Your task to perform on an android device: Open Wikipedia Image 0: 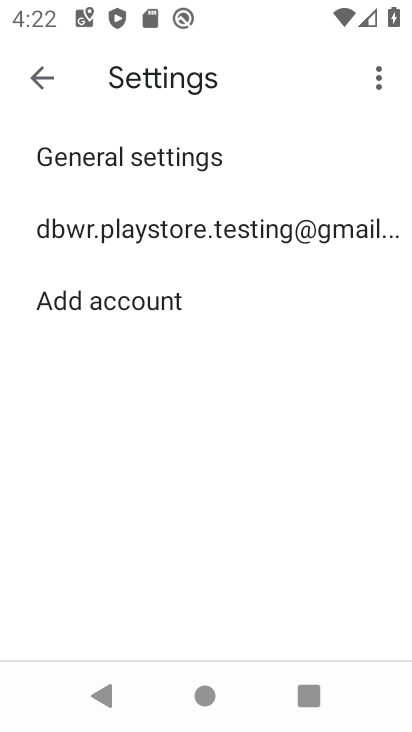
Step 0: press home button
Your task to perform on an android device: Open Wikipedia Image 1: 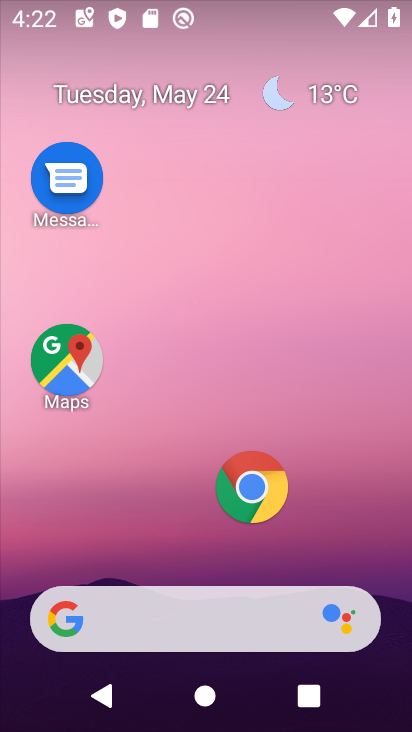
Step 1: drag from (212, 554) to (187, 225)
Your task to perform on an android device: Open Wikipedia Image 2: 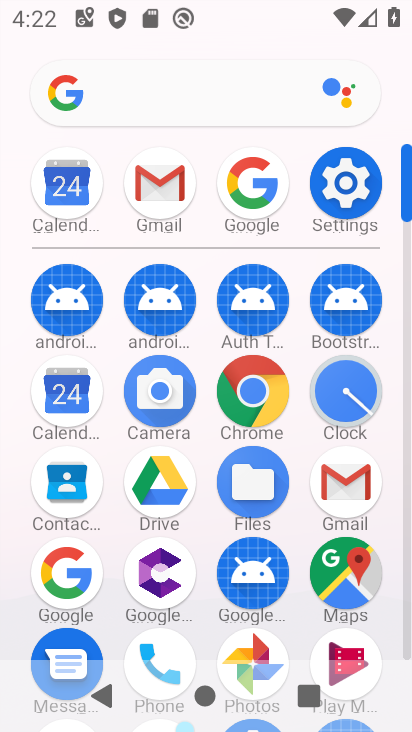
Step 2: click (242, 417)
Your task to perform on an android device: Open Wikipedia Image 3: 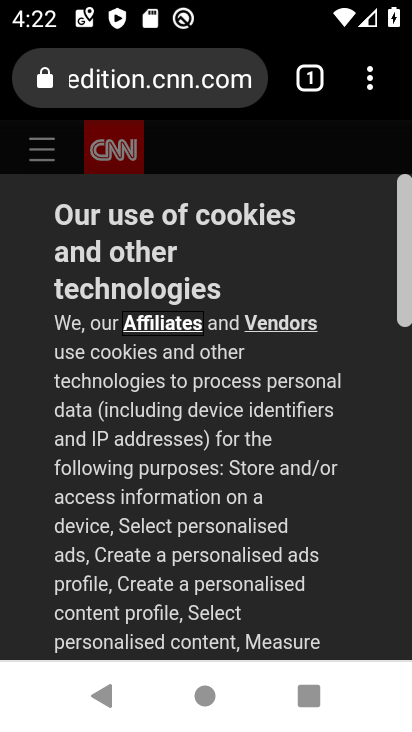
Step 3: press back button
Your task to perform on an android device: Open Wikipedia Image 4: 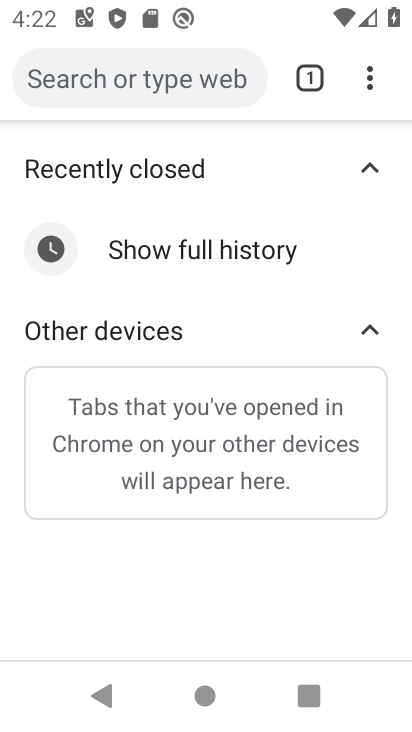
Step 4: press back button
Your task to perform on an android device: Open Wikipedia Image 5: 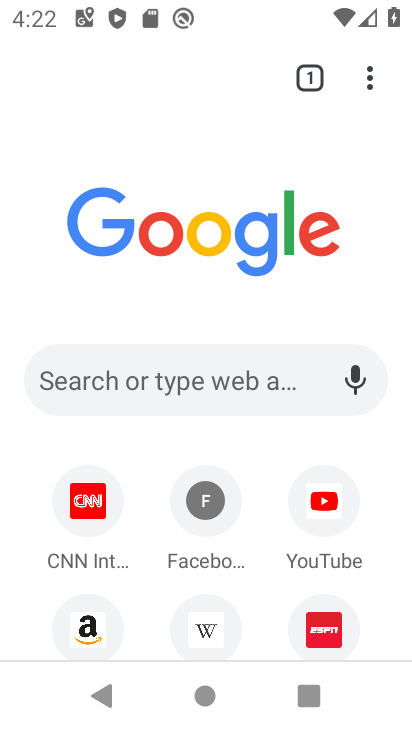
Step 5: click (214, 641)
Your task to perform on an android device: Open Wikipedia Image 6: 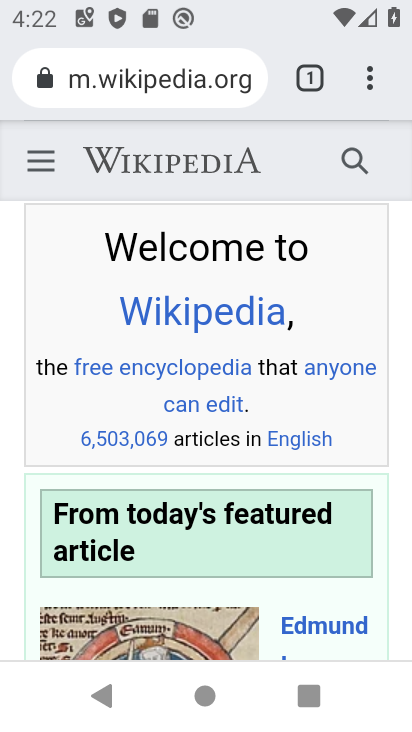
Step 6: task complete